Your task to perform on an android device: open wifi settings Image 0: 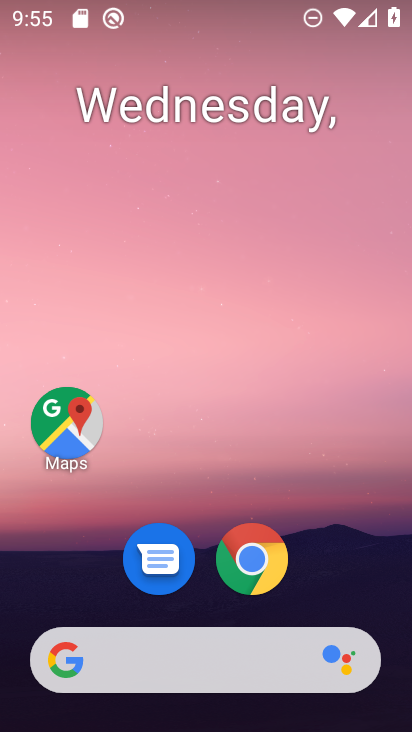
Step 0: drag from (366, 563) to (369, 198)
Your task to perform on an android device: open wifi settings Image 1: 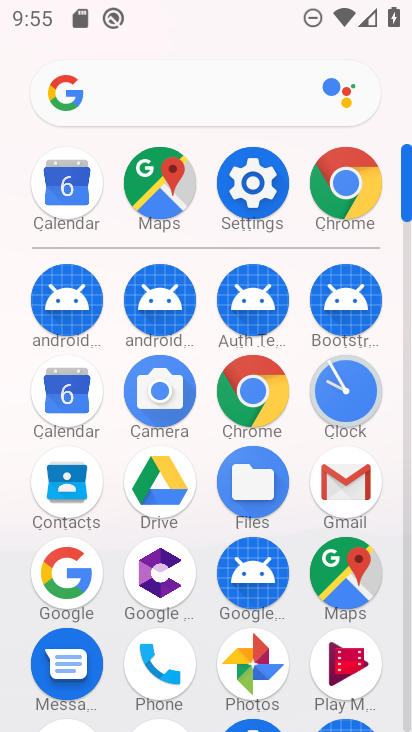
Step 1: click (246, 169)
Your task to perform on an android device: open wifi settings Image 2: 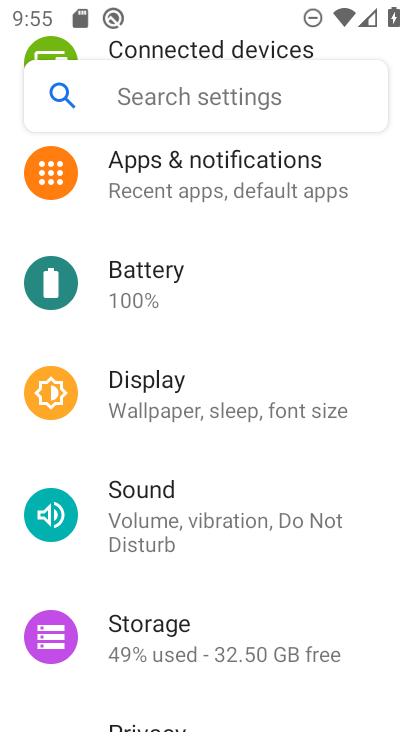
Step 2: drag from (360, 299) to (367, 343)
Your task to perform on an android device: open wifi settings Image 3: 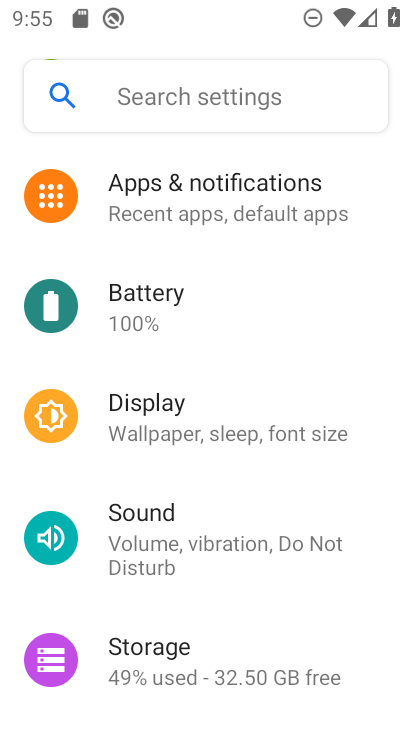
Step 3: drag from (372, 272) to (375, 333)
Your task to perform on an android device: open wifi settings Image 4: 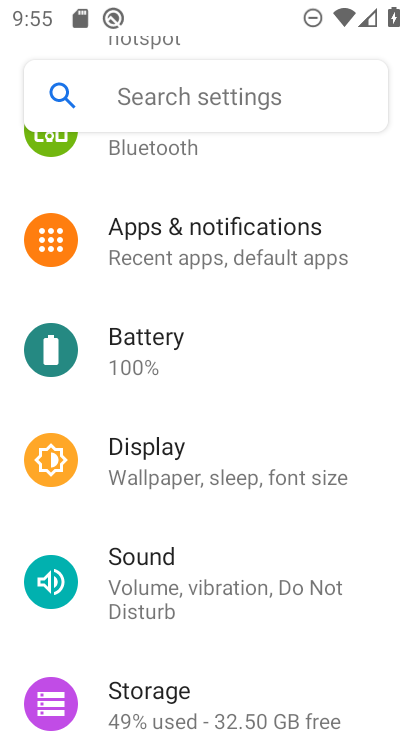
Step 4: drag from (377, 249) to (380, 332)
Your task to perform on an android device: open wifi settings Image 5: 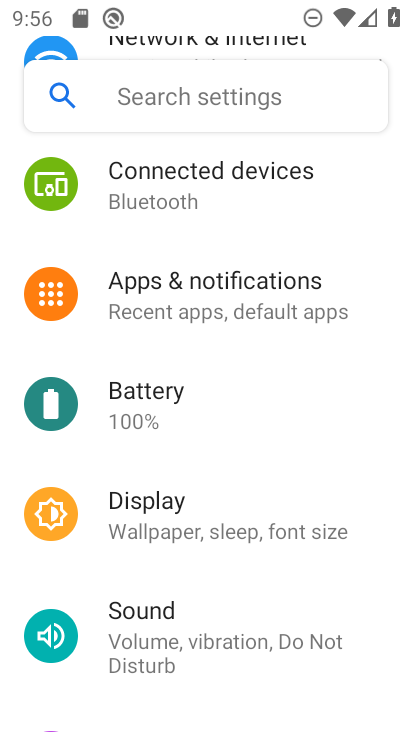
Step 5: drag from (370, 230) to (371, 317)
Your task to perform on an android device: open wifi settings Image 6: 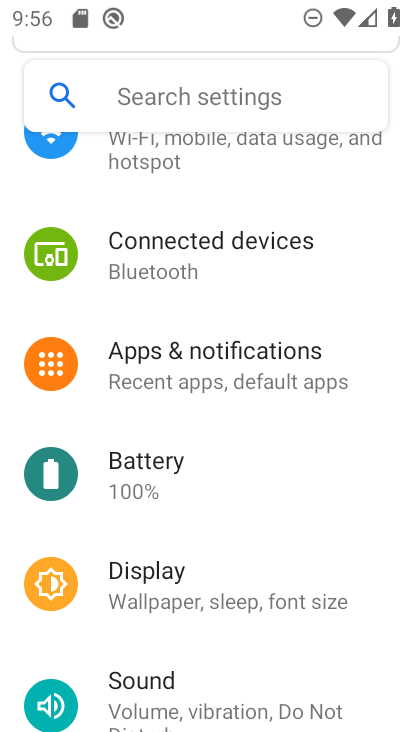
Step 6: drag from (361, 215) to (361, 312)
Your task to perform on an android device: open wifi settings Image 7: 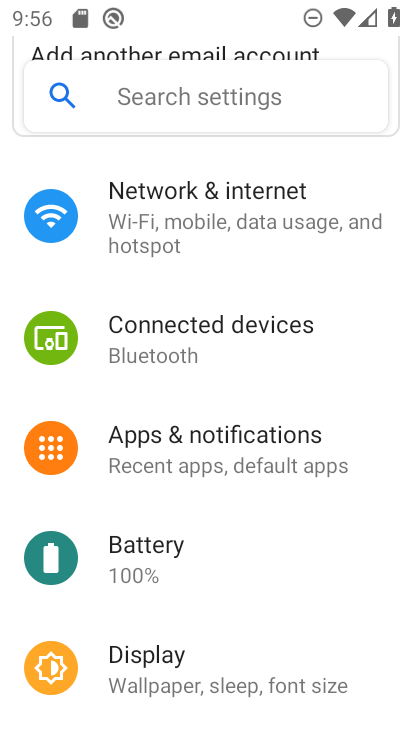
Step 7: drag from (363, 176) to (362, 301)
Your task to perform on an android device: open wifi settings Image 8: 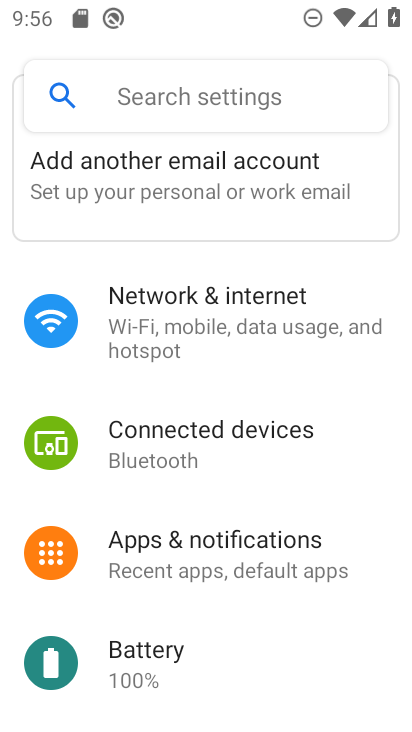
Step 8: click (268, 335)
Your task to perform on an android device: open wifi settings Image 9: 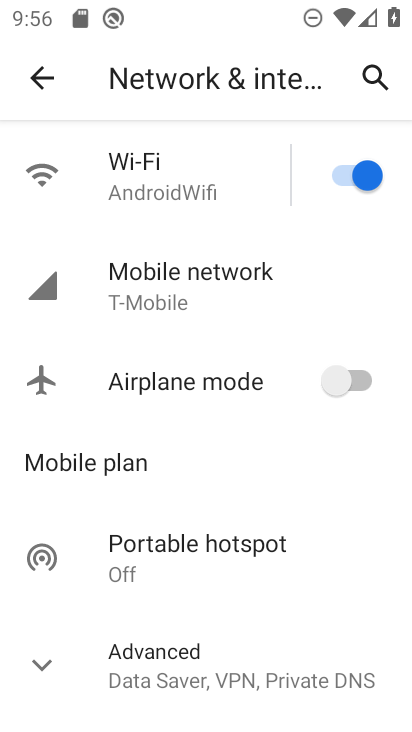
Step 9: click (192, 189)
Your task to perform on an android device: open wifi settings Image 10: 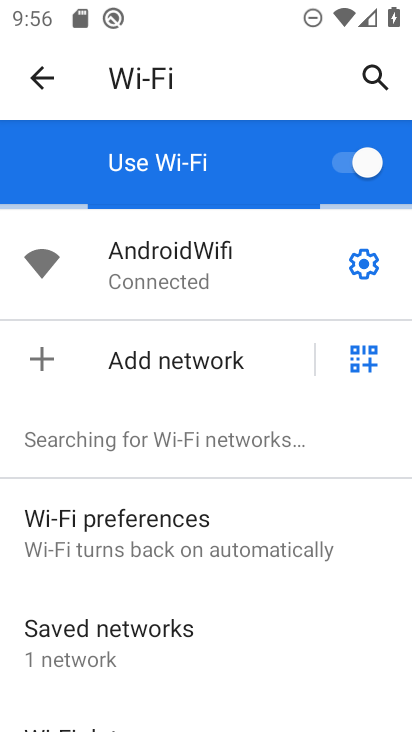
Step 10: task complete